Your task to perform on an android device: Open maps Image 0: 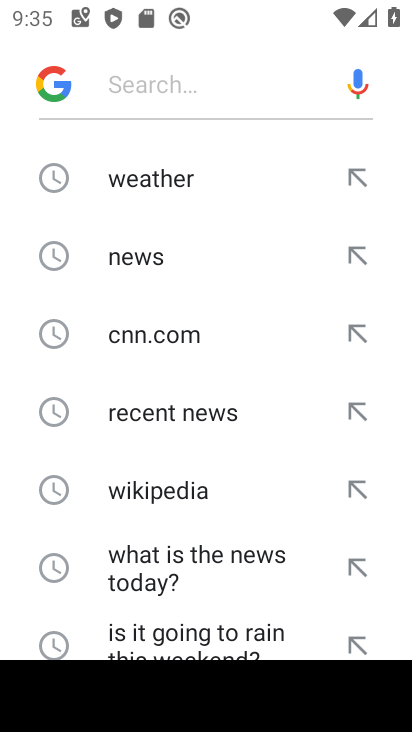
Step 0: press home button
Your task to perform on an android device: Open maps Image 1: 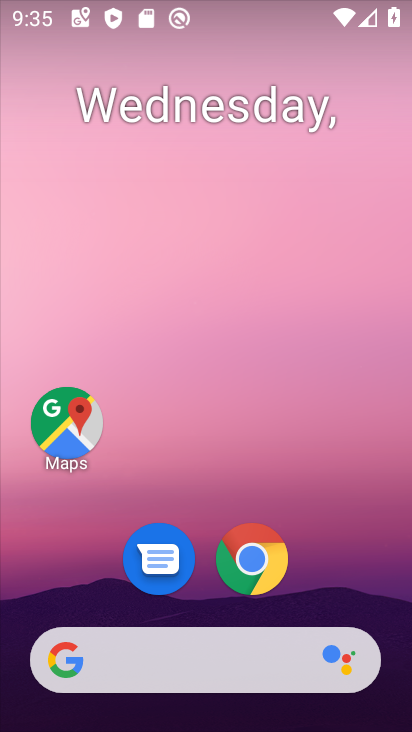
Step 1: click (33, 420)
Your task to perform on an android device: Open maps Image 2: 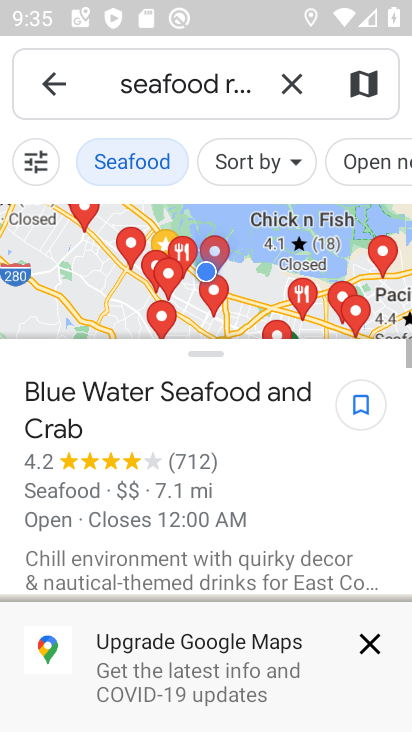
Step 2: click (39, 422)
Your task to perform on an android device: Open maps Image 3: 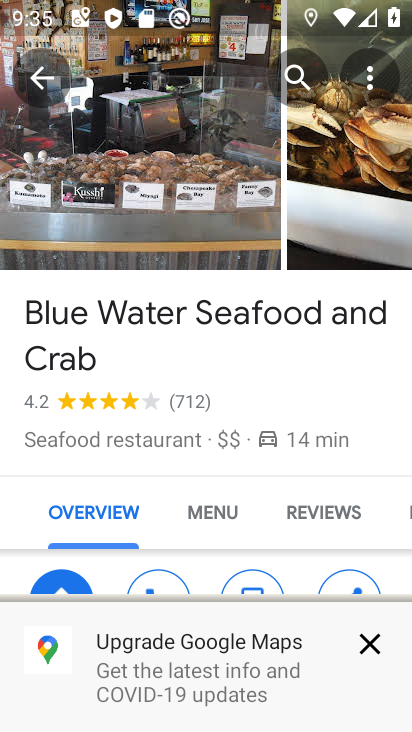
Step 3: task complete